Your task to perform on an android device: Open Google Maps and go to "Timeline" Image 0: 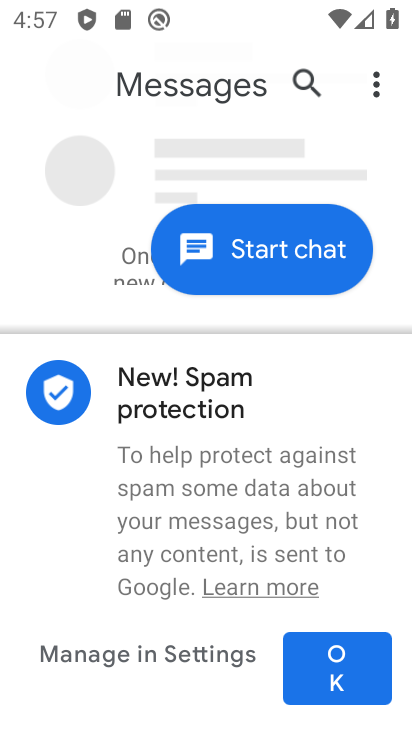
Step 0: press home button
Your task to perform on an android device: Open Google Maps and go to "Timeline" Image 1: 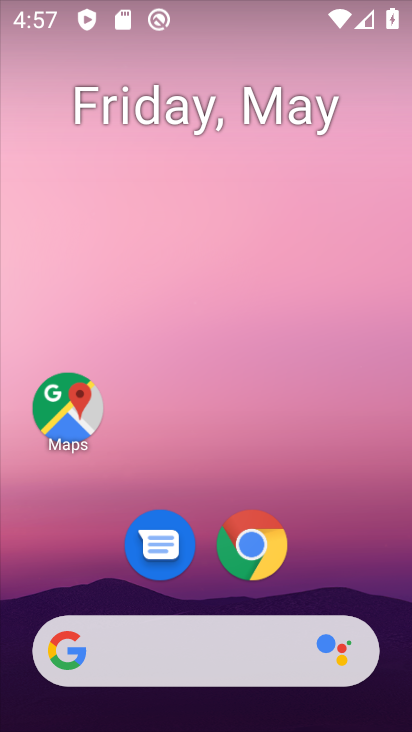
Step 1: click (66, 430)
Your task to perform on an android device: Open Google Maps and go to "Timeline" Image 2: 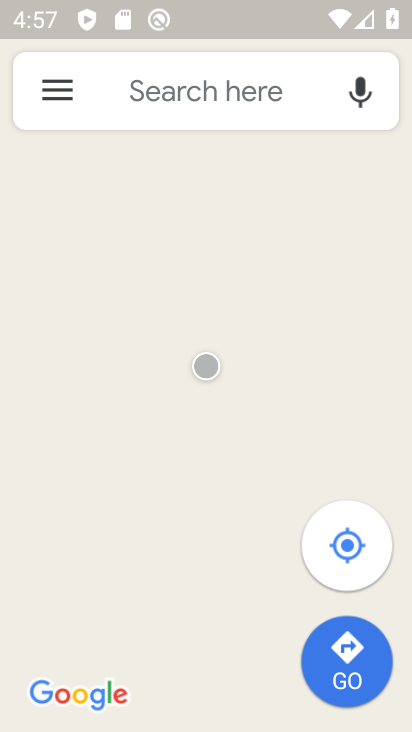
Step 2: click (59, 91)
Your task to perform on an android device: Open Google Maps and go to "Timeline" Image 3: 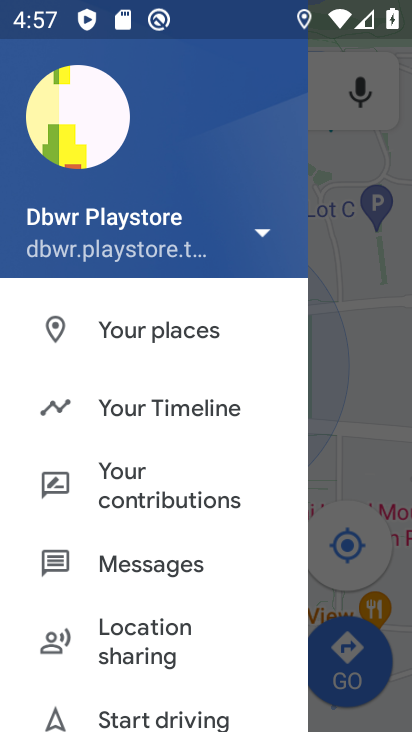
Step 3: click (131, 399)
Your task to perform on an android device: Open Google Maps and go to "Timeline" Image 4: 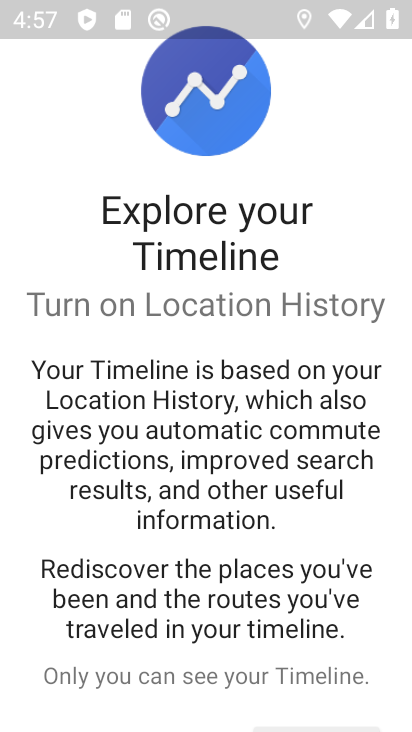
Step 4: task complete